Your task to perform on an android device: turn on javascript in the chrome app Image 0: 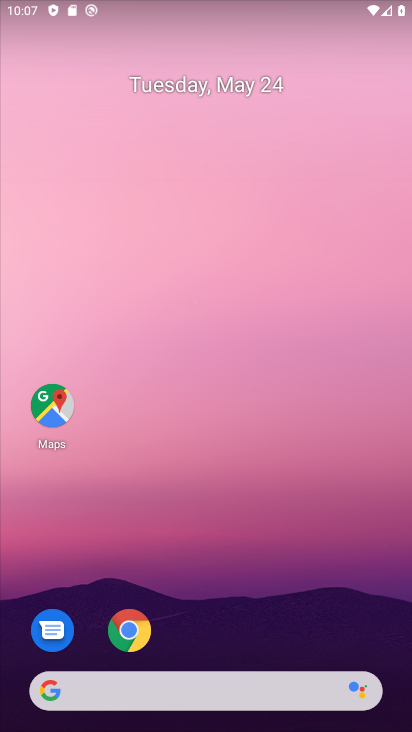
Step 0: press home button
Your task to perform on an android device: turn on javascript in the chrome app Image 1: 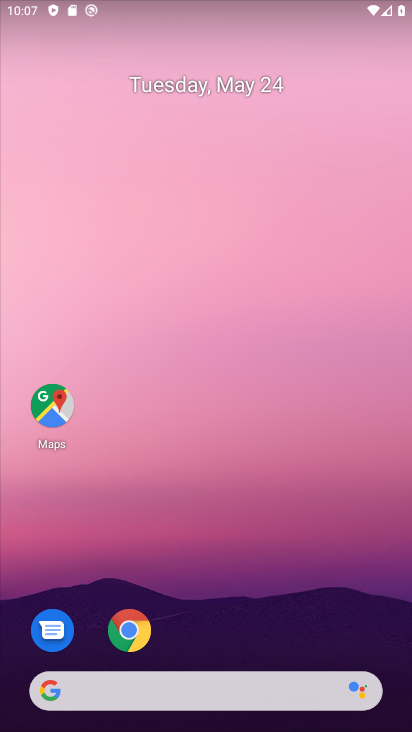
Step 1: click (127, 624)
Your task to perform on an android device: turn on javascript in the chrome app Image 2: 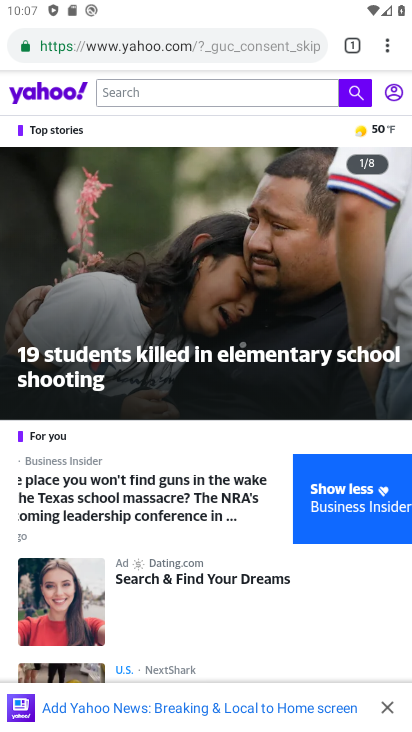
Step 2: click (387, 46)
Your task to perform on an android device: turn on javascript in the chrome app Image 3: 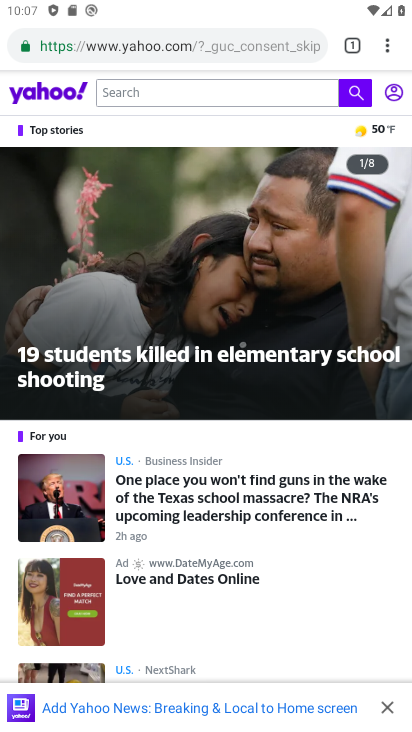
Step 3: click (383, 42)
Your task to perform on an android device: turn on javascript in the chrome app Image 4: 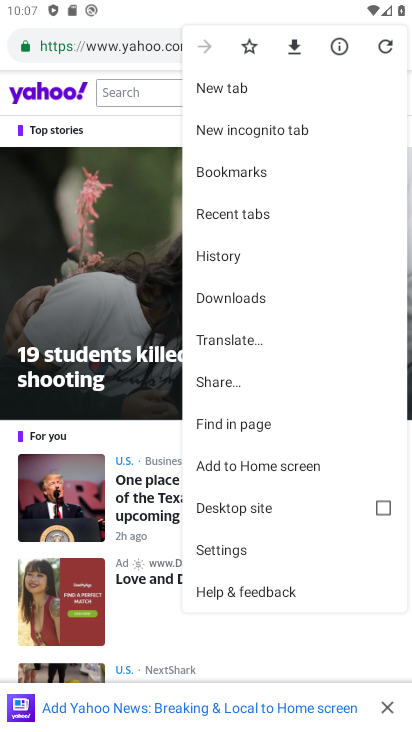
Step 4: click (252, 548)
Your task to perform on an android device: turn on javascript in the chrome app Image 5: 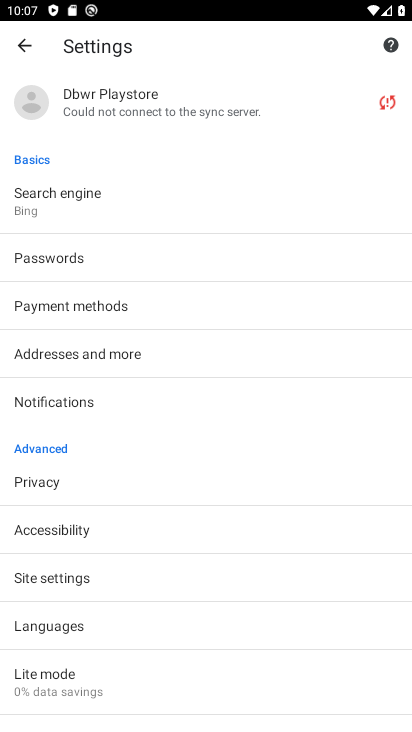
Step 5: click (93, 577)
Your task to perform on an android device: turn on javascript in the chrome app Image 6: 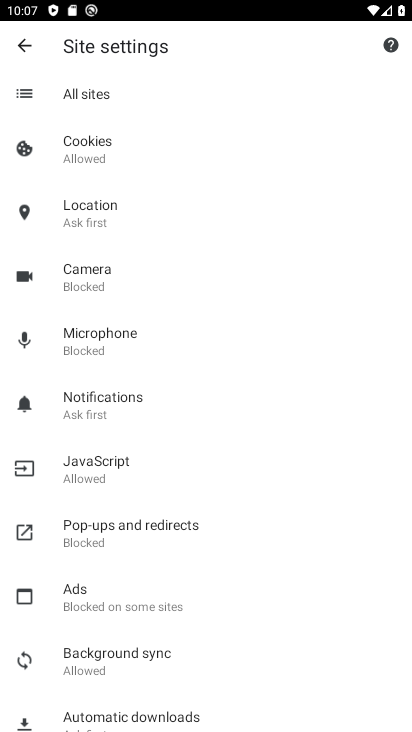
Step 6: click (140, 466)
Your task to perform on an android device: turn on javascript in the chrome app Image 7: 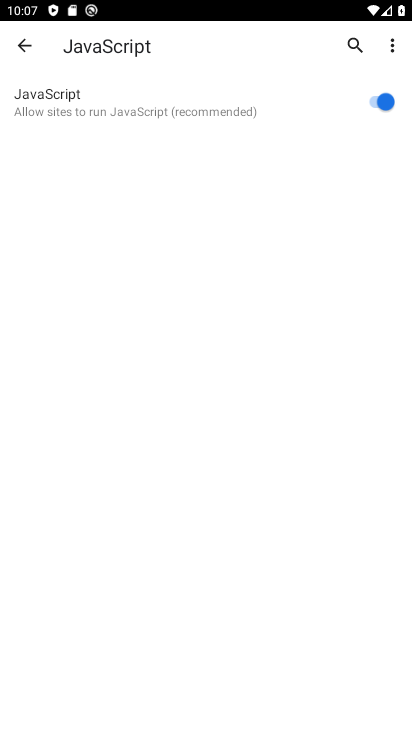
Step 7: task complete